Your task to perform on an android device: Open calendar and show me the fourth week of next month Image 0: 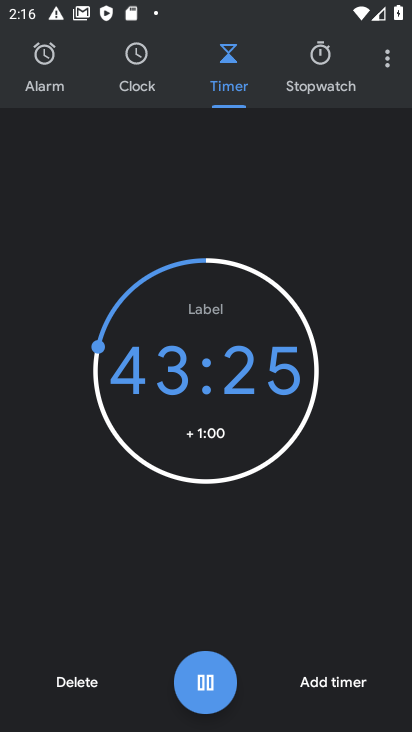
Step 0: press home button
Your task to perform on an android device: Open calendar and show me the fourth week of next month Image 1: 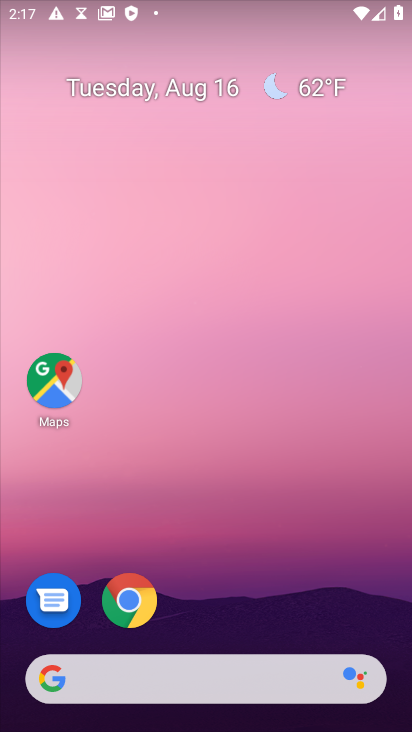
Step 1: drag from (201, 668) to (192, 68)
Your task to perform on an android device: Open calendar and show me the fourth week of next month Image 2: 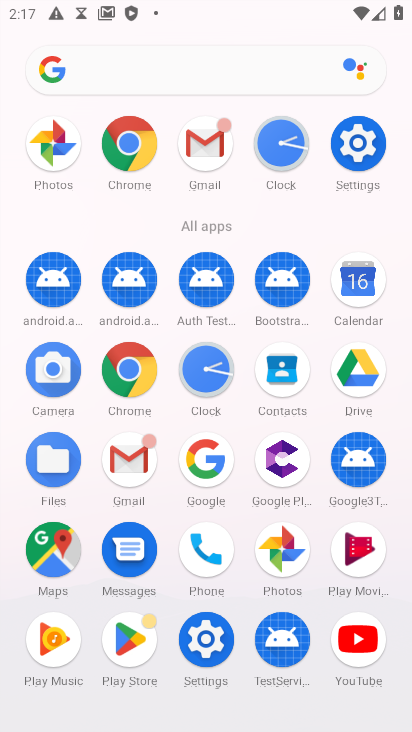
Step 2: click (362, 285)
Your task to perform on an android device: Open calendar and show me the fourth week of next month Image 3: 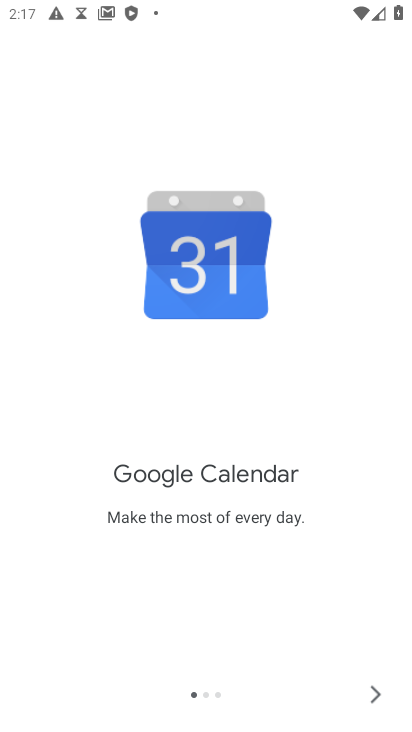
Step 3: click (366, 714)
Your task to perform on an android device: Open calendar and show me the fourth week of next month Image 4: 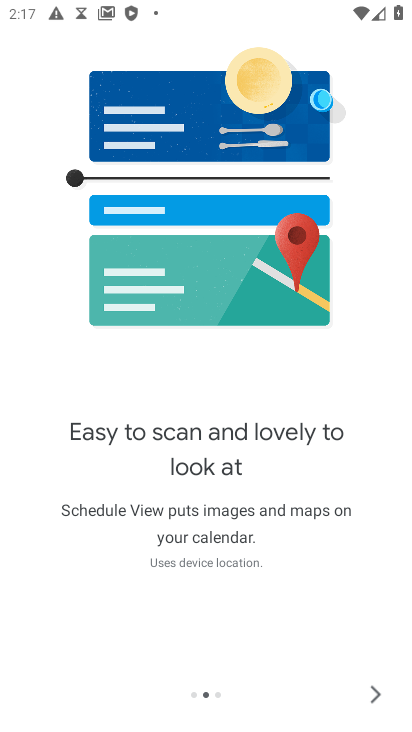
Step 4: click (377, 697)
Your task to perform on an android device: Open calendar and show me the fourth week of next month Image 5: 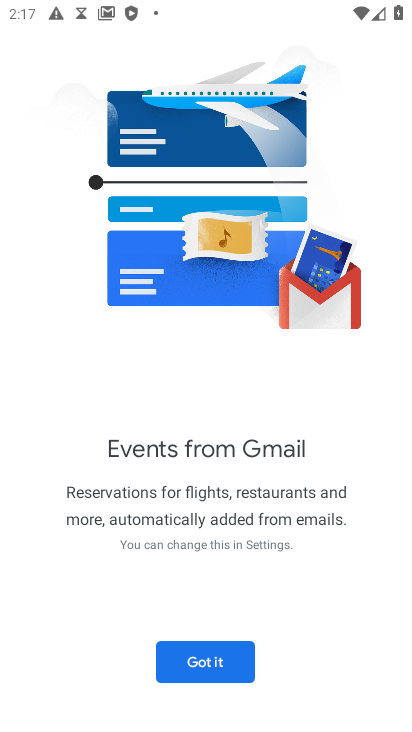
Step 5: click (377, 697)
Your task to perform on an android device: Open calendar and show me the fourth week of next month Image 6: 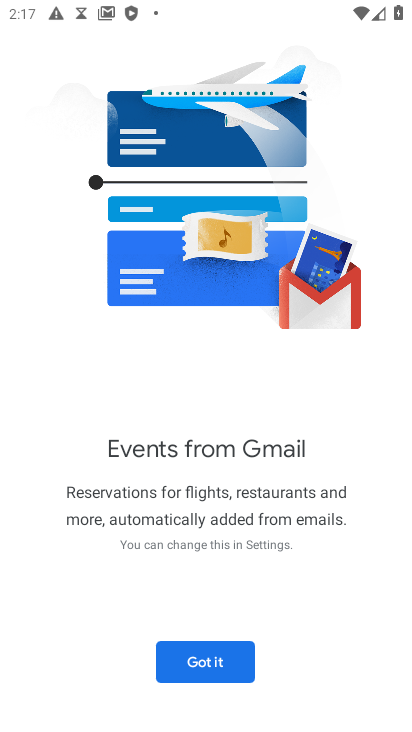
Step 6: click (204, 677)
Your task to perform on an android device: Open calendar and show me the fourth week of next month Image 7: 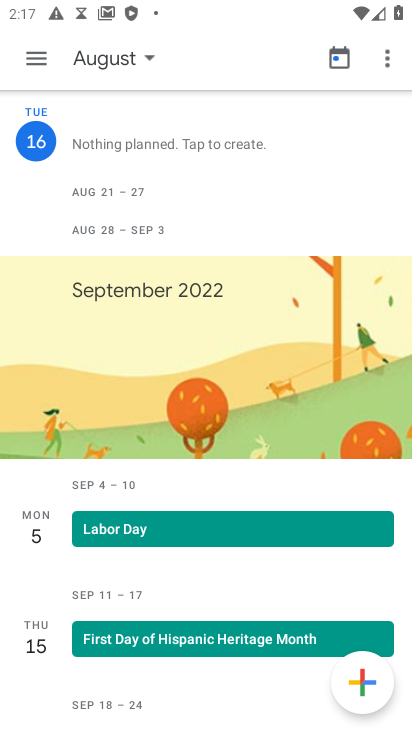
Step 7: click (39, 57)
Your task to perform on an android device: Open calendar and show me the fourth week of next month Image 8: 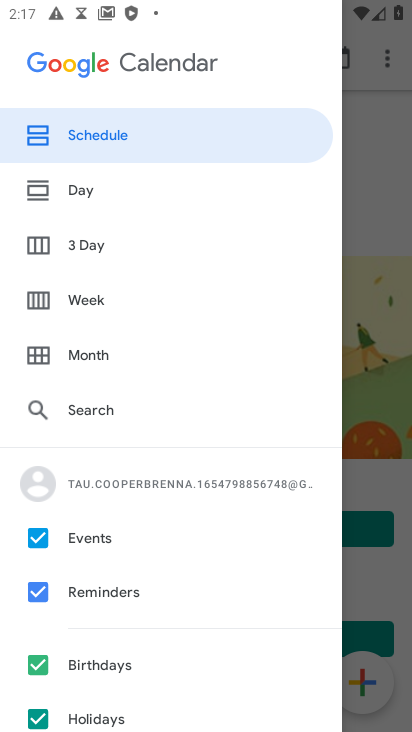
Step 8: click (78, 359)
Your task to perform on an android device: Open calendar and show me the fourth week of next month Image 9: 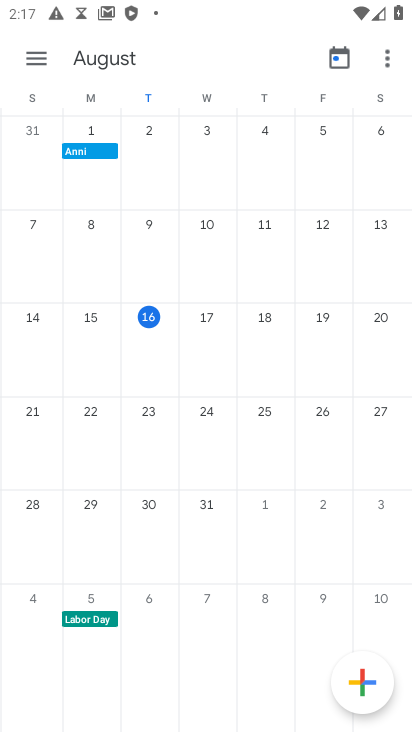
Step 9: task complete